Your task to perform on an android device: change the clock display to digital Image 0: 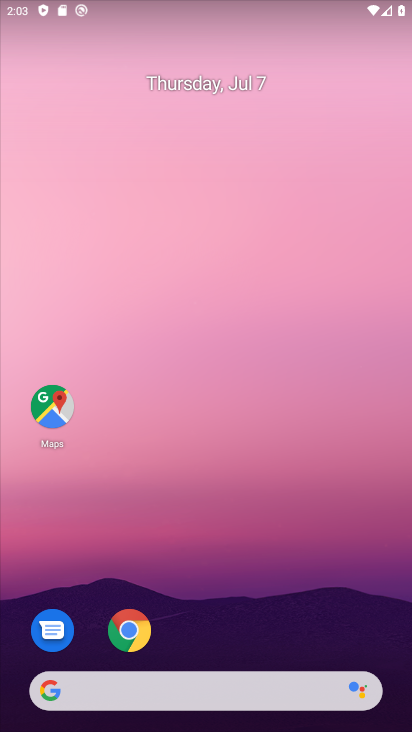
Step 0: drag from (249, 626) to (330, 148)
Your task to perform on an android device: change the clock display to digital Image 1: 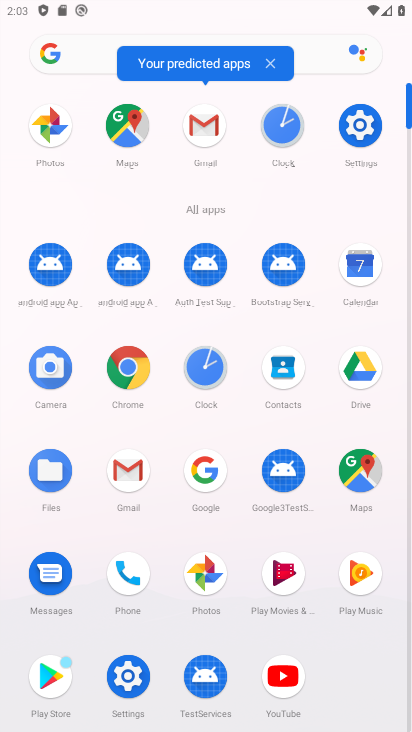
Step 1: click (278, 124)
Your task to perform on an android device: change the clock display to digital Image 2: 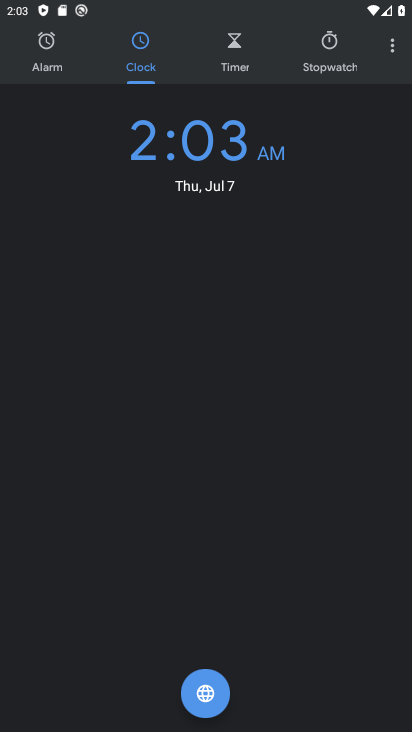
Step 2: click (389, 46)
Your task to perform on an android device: change the clock display to digital Image 3: 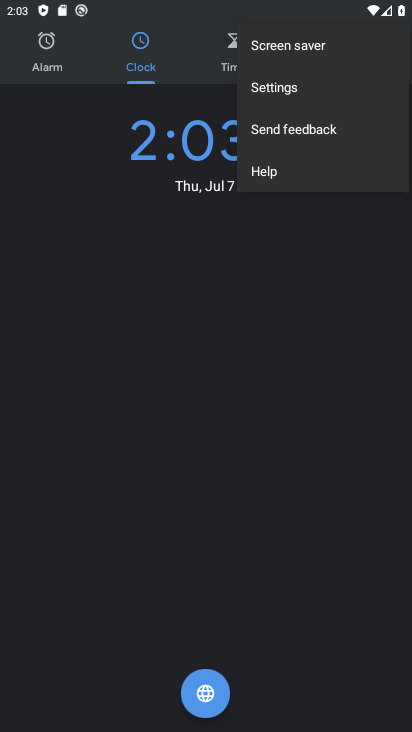
Step 3: click (262, 84)
Your task to perform on an android device: change the clock display to digital Image 4: 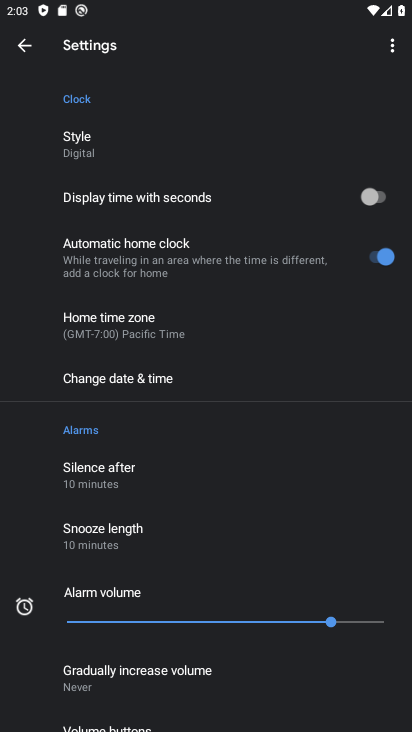
Step 4: click (78, 145)
Your task to perform on an android device: change the clock display to digital Image 5: 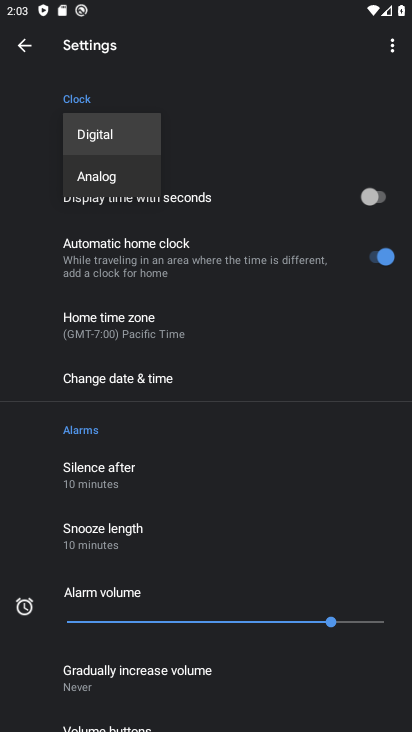
Step 5: task complete